Your task to perform on an android device: turn pop-ups on in chrome Image 0: 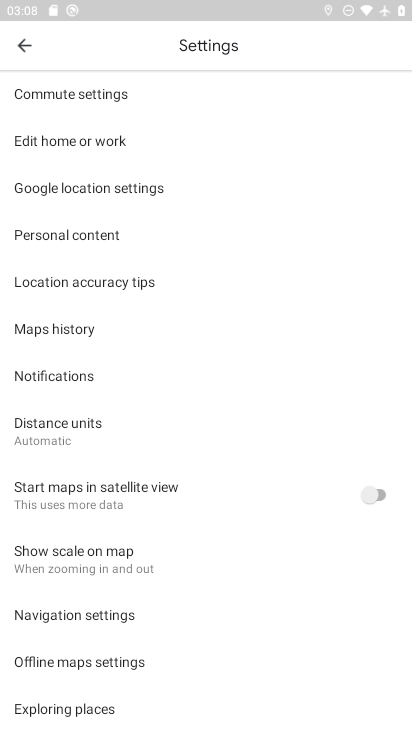
Step 0: press home button
Your task to perform on an android device: turn pop-ups on in chrome Image 1: 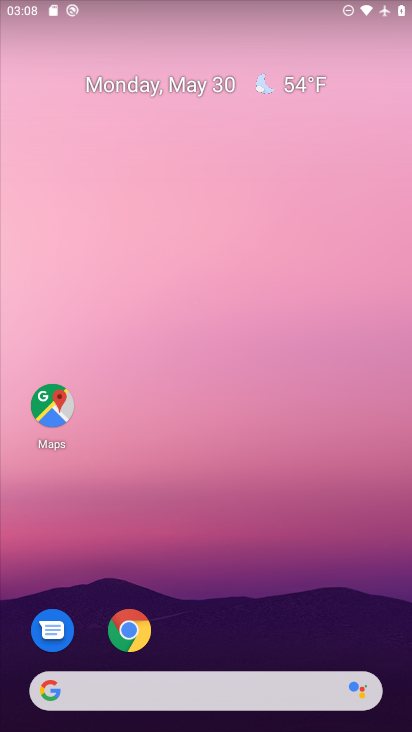
Step 1: click (127, 629)
Your task to perform on an android device: turn pop-ups on in chrome Image 2: 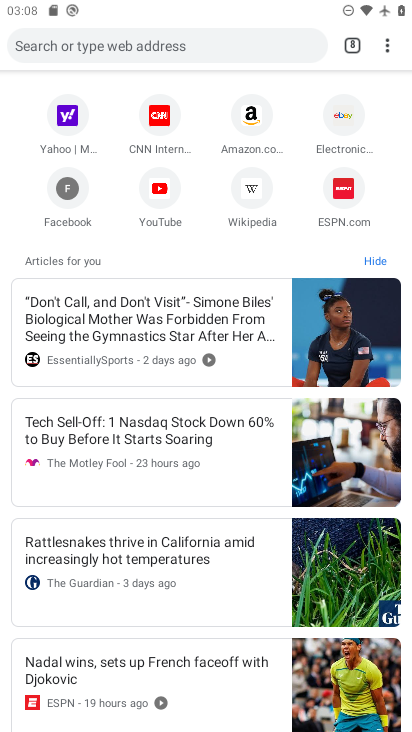
Step 2: drag from (386, 44) to (233, 390)
Your task to perform on an android device: turn pop-ups on in chrome Image 3: 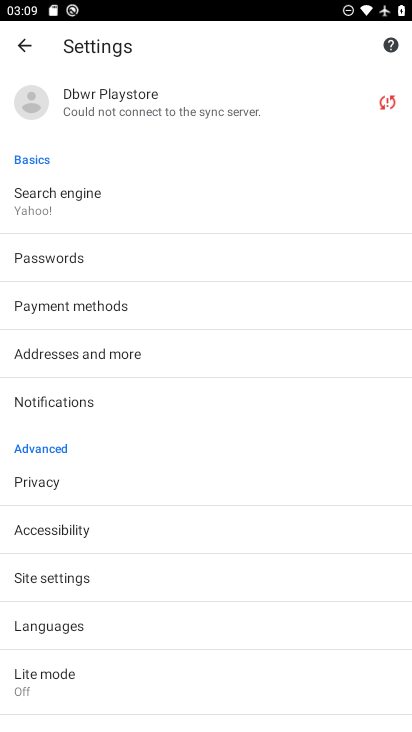
Step 3: click (79, 581)
Your task to perform on an android device: turn pop-ups on in chrome Image 4: 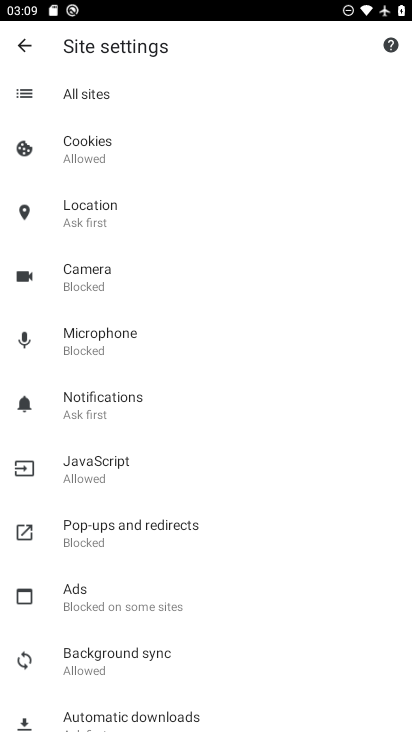
Step 4: click (101, 536)
Your task to perform on an android device: turn pop-ups on in chrome Image 5: 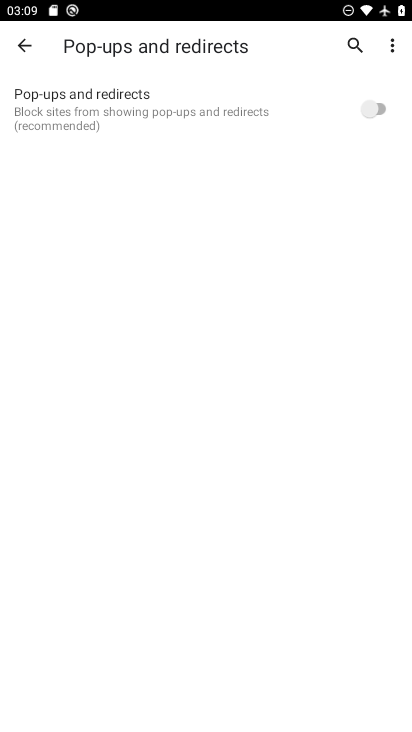
Step 5: click (385, 102)
Your task to perform on an android device: turn pop-ups on in chrome Image 6: 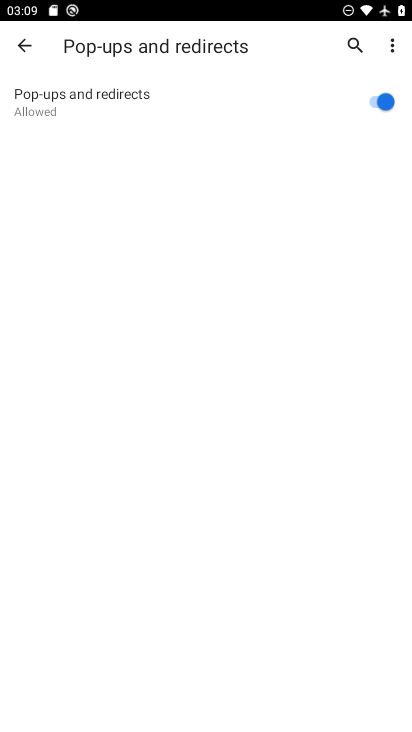
Step 6: task complete